Your task to perform on an android device: Open calendar and show me the fourth week of next month Image 0: 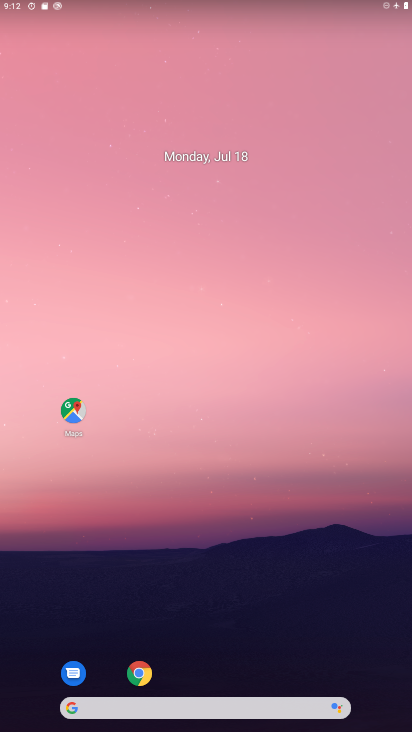
Step 0: press home button
Your task to perform on an android device: Open calendar and show me the fourth week of next month Image 1: 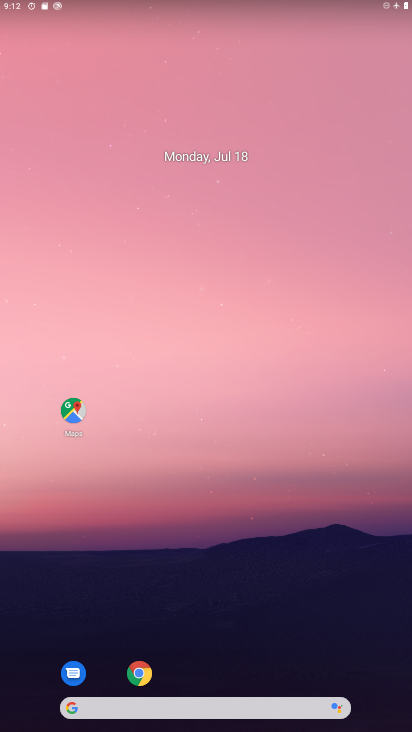
Step 1: drag from (237, 678) to (192, 38)
Your task to perform on an android device: Open calendar and show me the fourth week of next month Image 2: 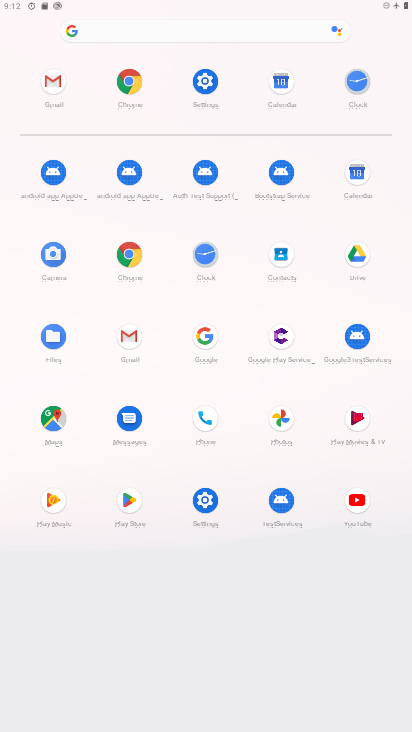
Step 2: click (354, 175)
Your task to perform on an android device: Open calendar and show me the fourth week of next month Image 3: 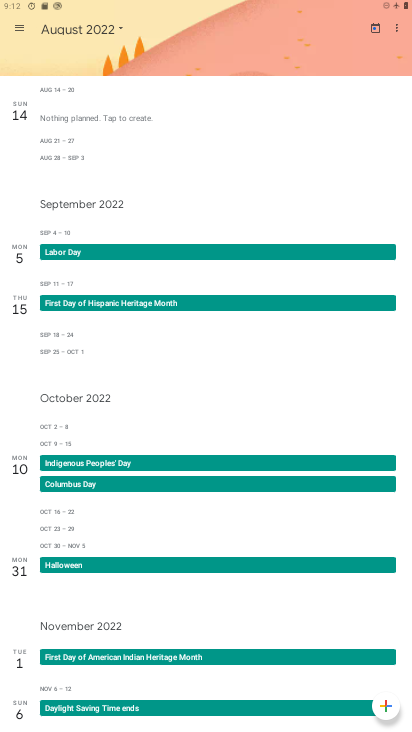
Step 3: click (97, 36)
Your task to perform on an android device: Open calendar and show me the fourth week of next month Image 4: 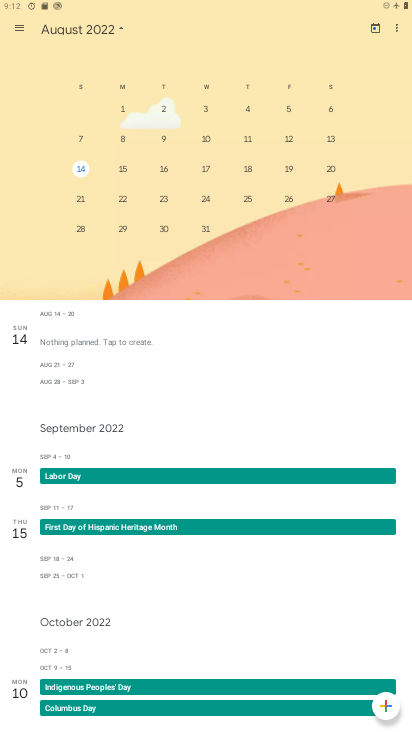
Step 4: click (244, 200)
Your task to perform on an android device: Open calendar and show me the fourth week of next month Image 5: 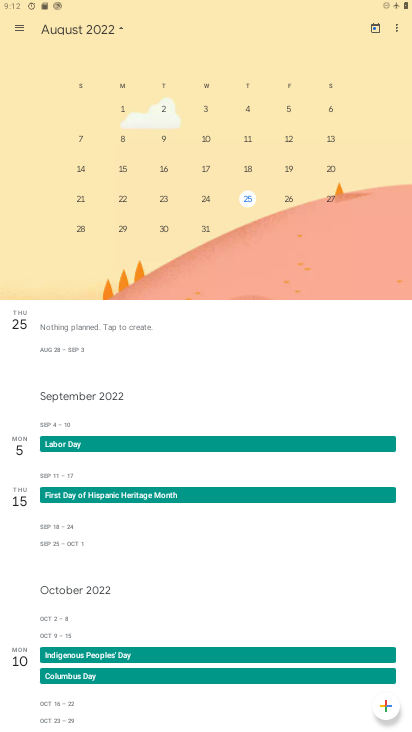
Step 5: click (281, 202)
Your task to perform on an android device: Open calendar and show me the fourth week of next month Image 6: 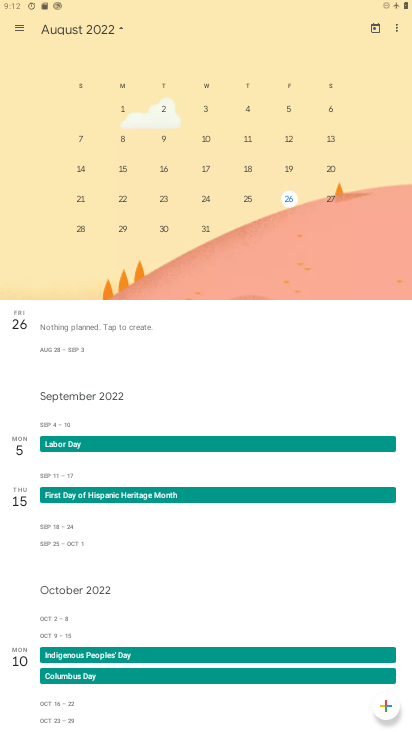
Step 6: click (336, 204)
Your task to perform on an android device: Open calendar and show me the fourth week of next month Image 7: 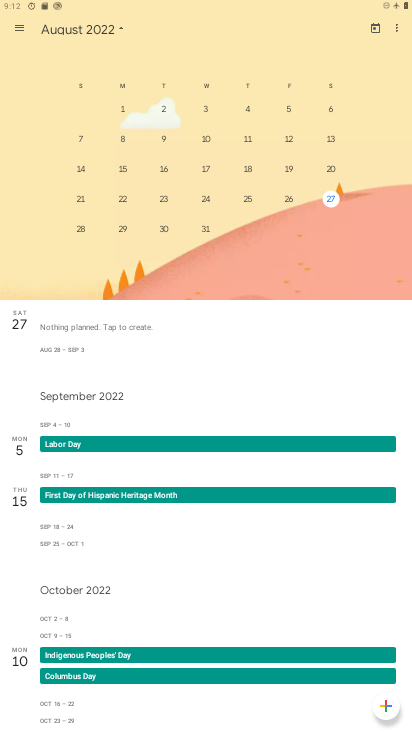
Step 7: click (84, 229)
Your task to perform on an android device: Open calendar and show me the fourth week of next month Image 8: 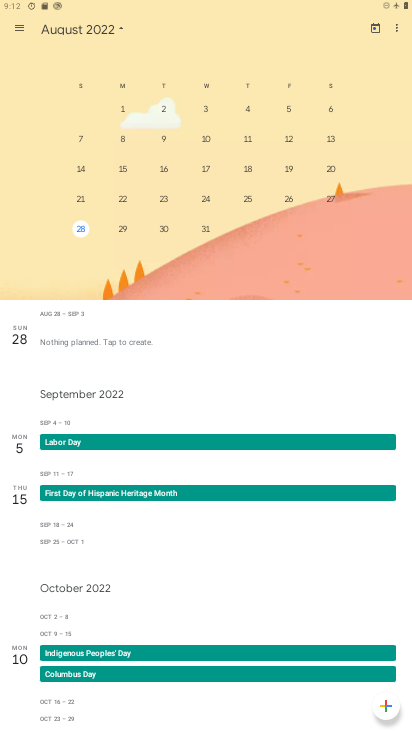
Step 8: click (120, 232)
Your task to perform on an android device: Open calendar and show me the fourth week of next month Image 9: 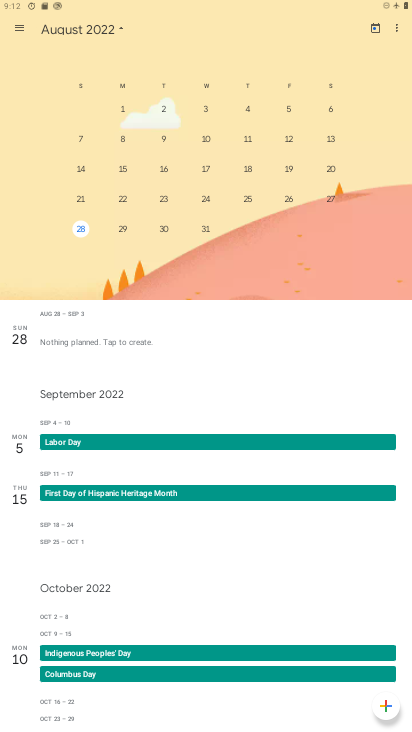
Step 9: click (166, 228)
Your task to perform on an android device: Open calendar and show me the fourth week of next month Image 10: 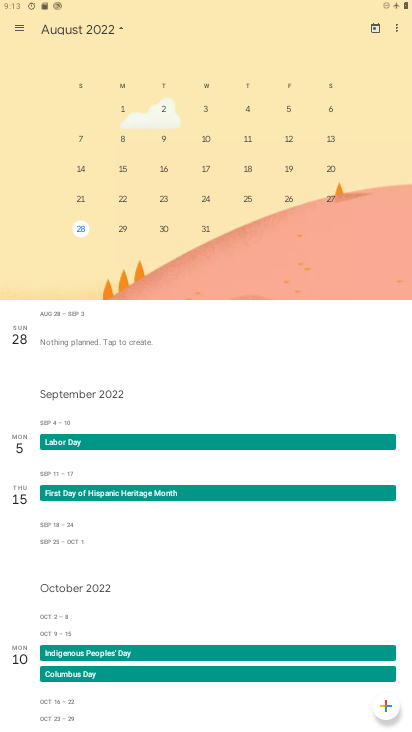
Step 10: click (135, 225)
Your task to perform on an android device: Open calendar and show me the fourth week of next month Image 11: 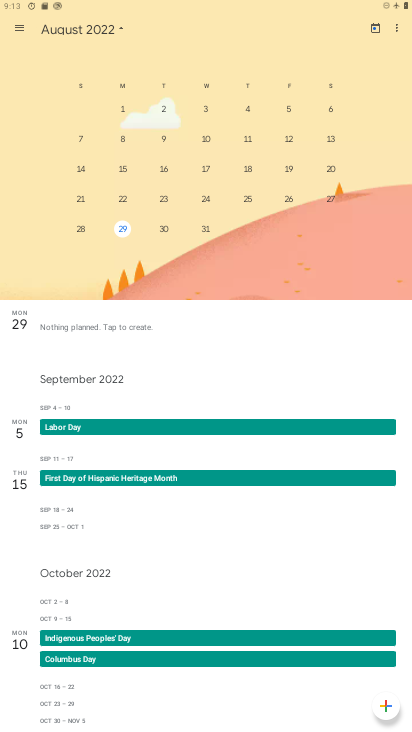
Step 11: click (165, 230)
Your task to perform on an android device: Open calendar and show me the fourth week of next month Image 12: 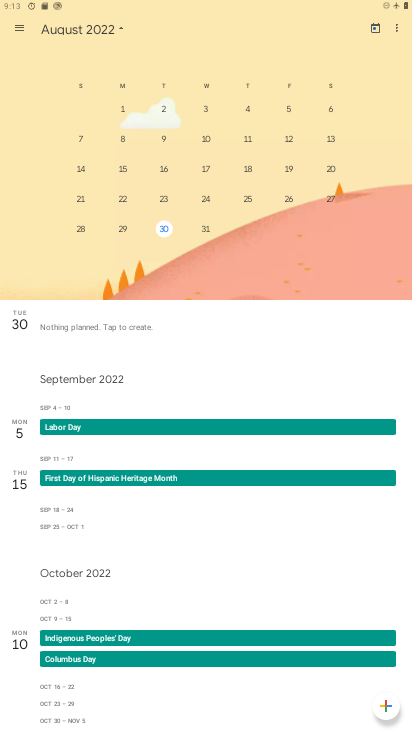
Step 12: click (217, 232)
Your task to perform on an android device: Open calendar and show me the fourth week of next month Image 13: 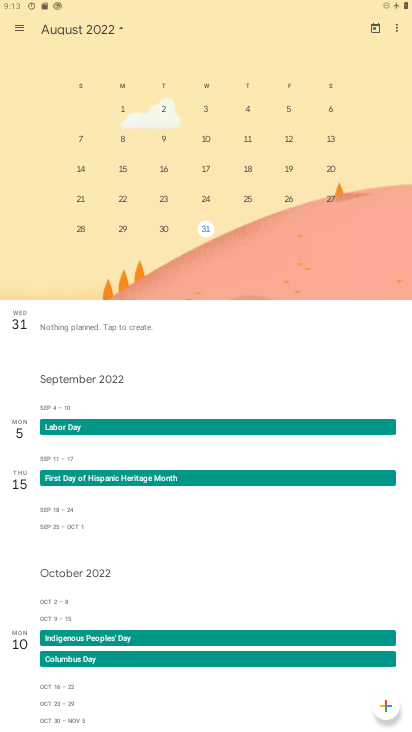
Step 13: task complete